Your task to perform on an android device: install app "Clock" Image 0: 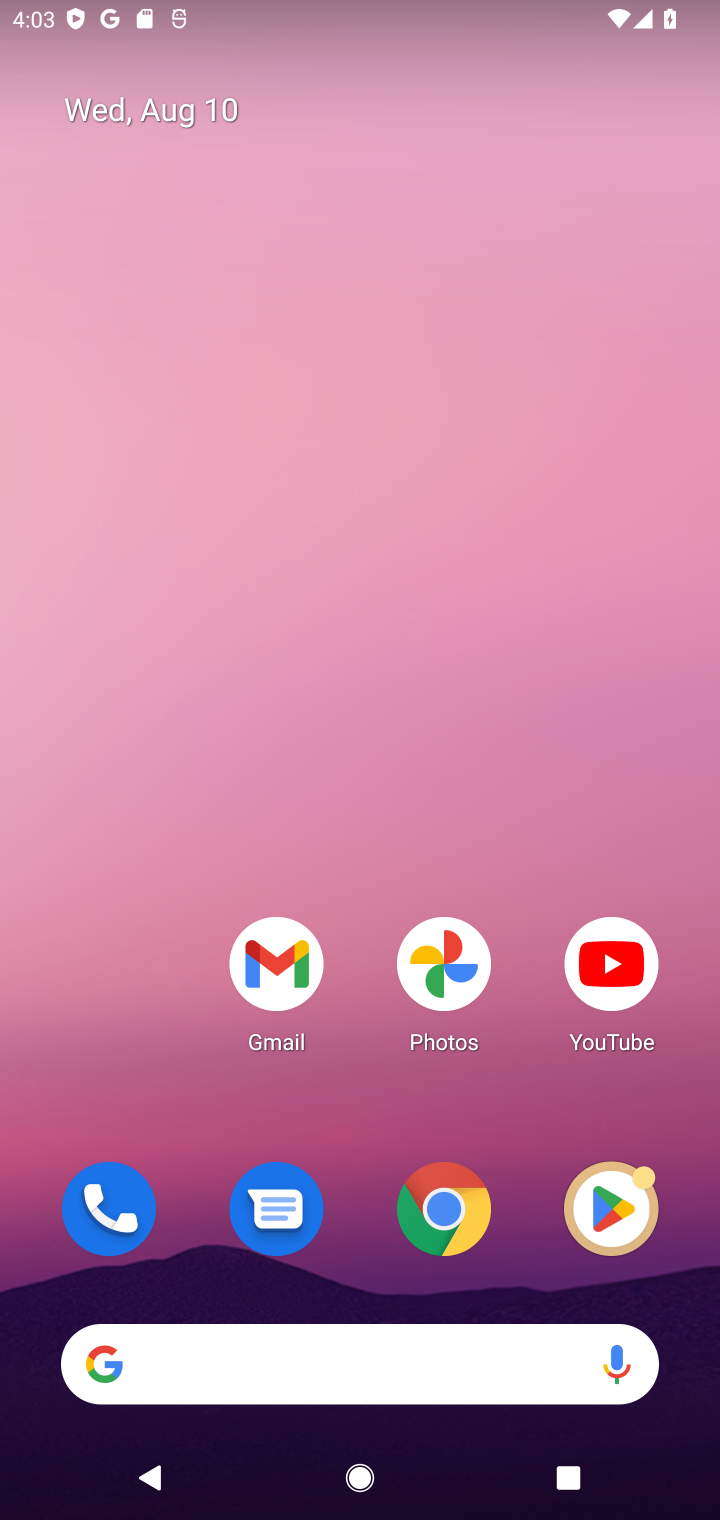
Step 0: click (617, 1226)
Your task to perform on an android device: install app "Clock" Image 1: 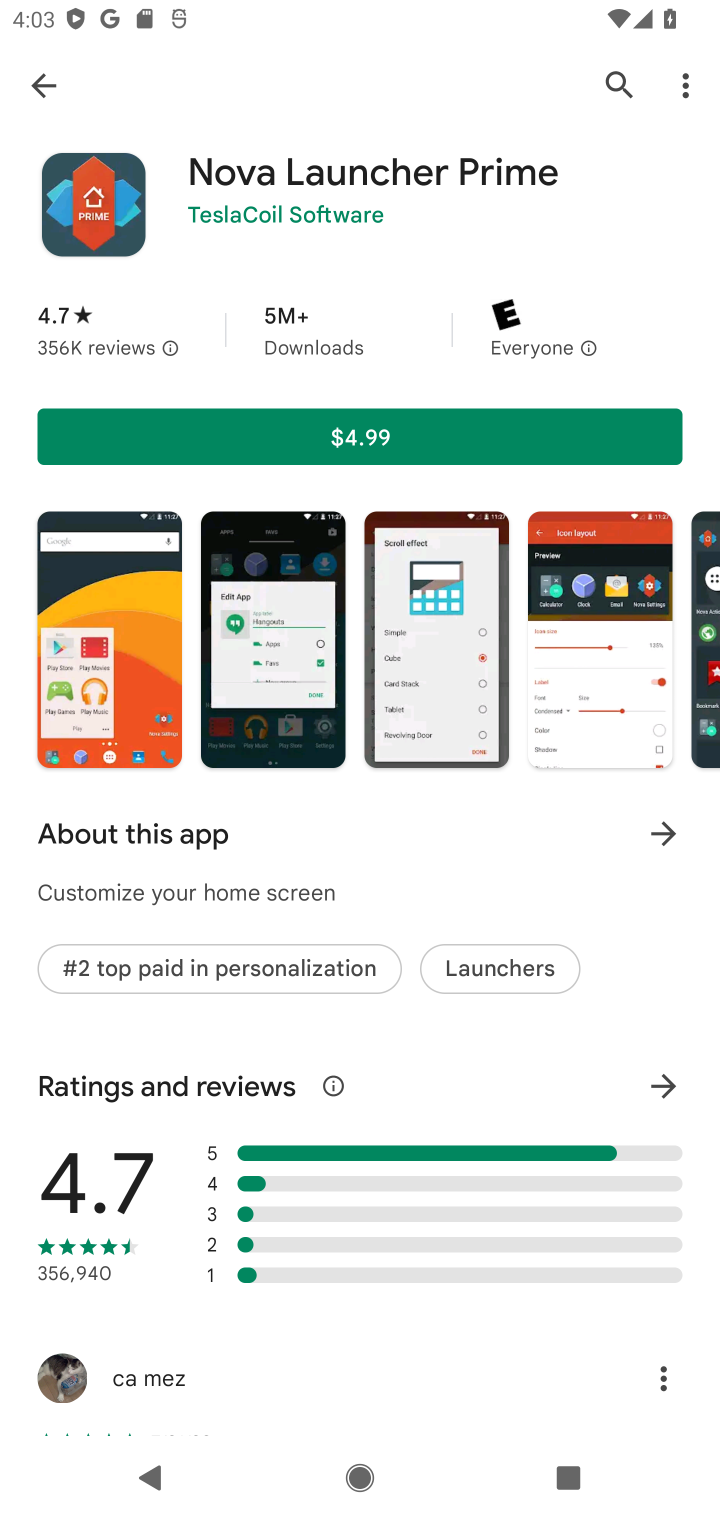
Step 1: click (624, 77)
Your task to perform on an android device: install app "Clock" Image 2: 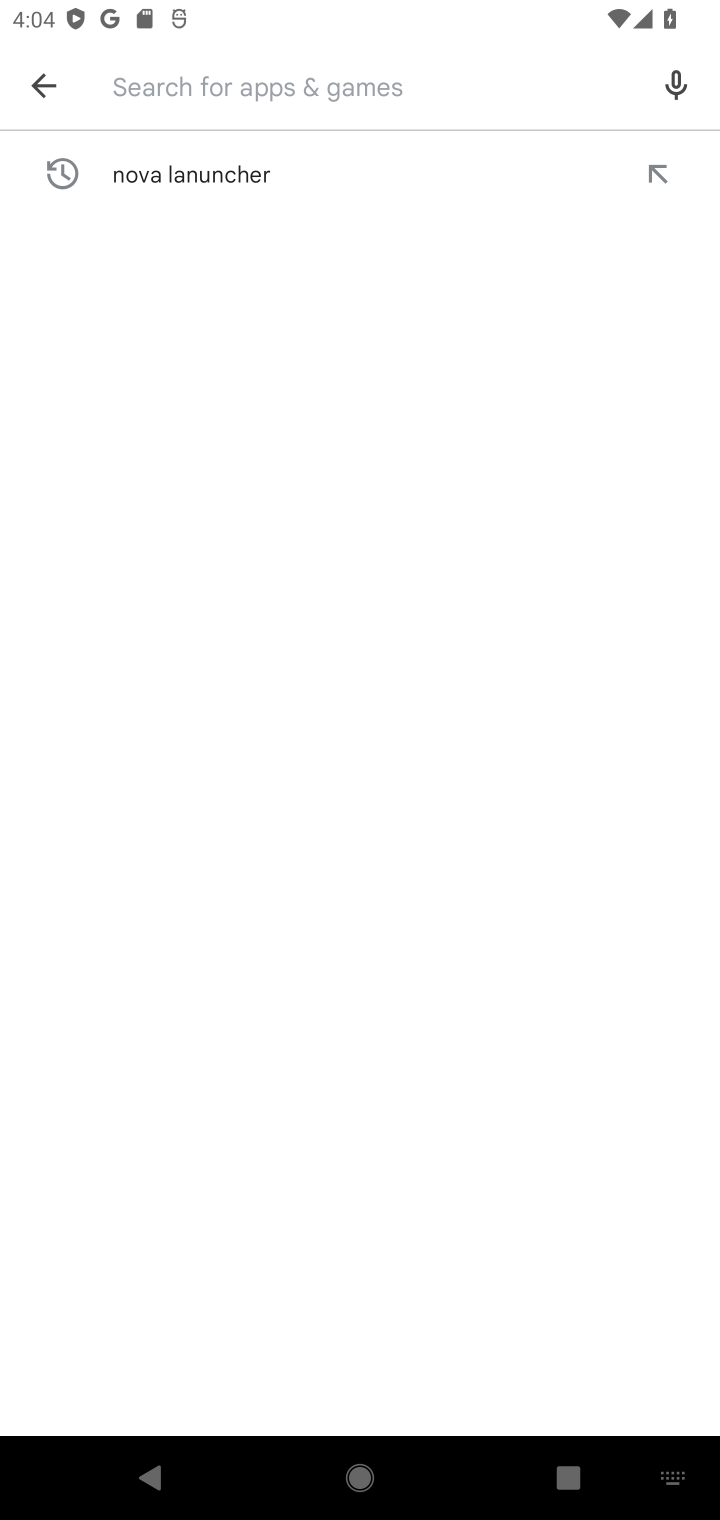
Step 2: type "clock"
Your task to perform on an android device: install app "Clock" Image 3: 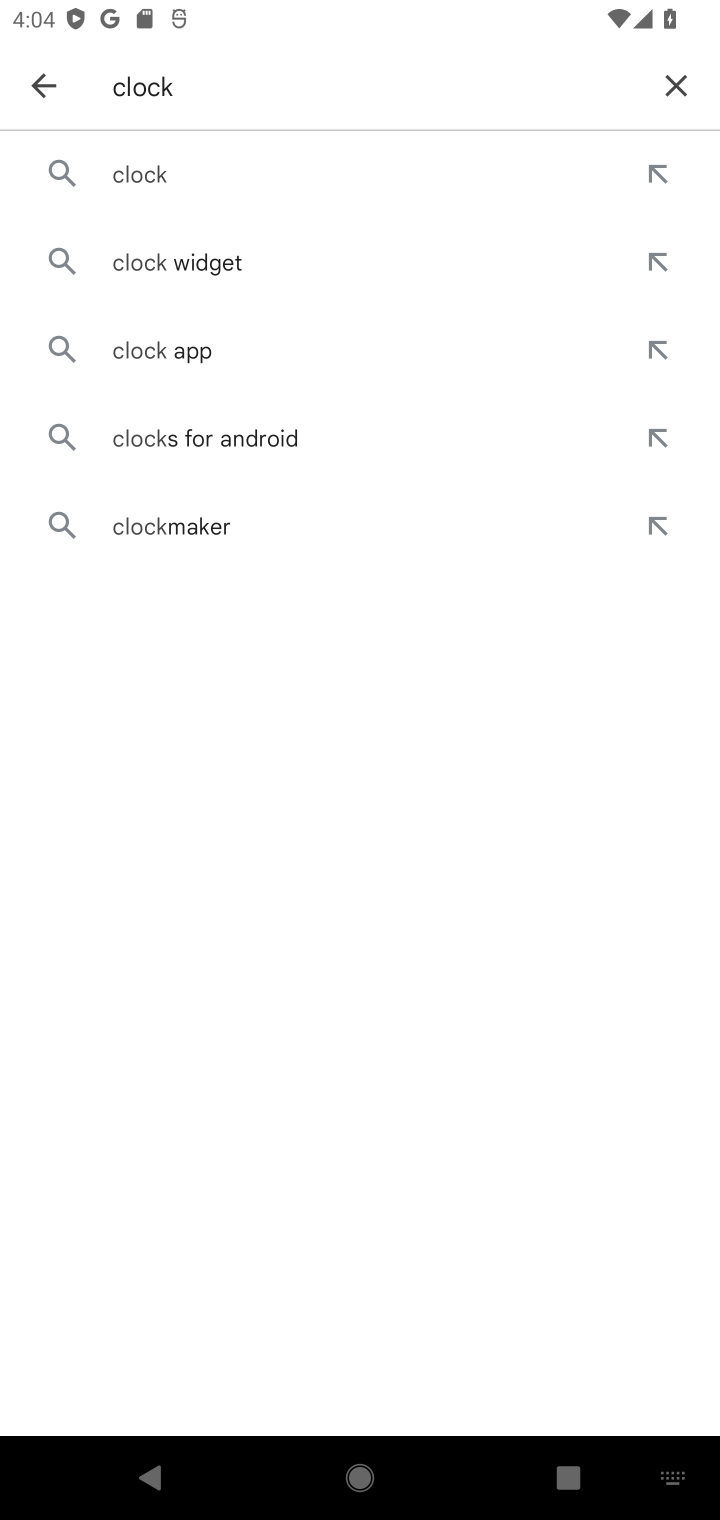
Step 3: click (228, 193)
Your task to perform on an android device: install app "Clock" Image 4: 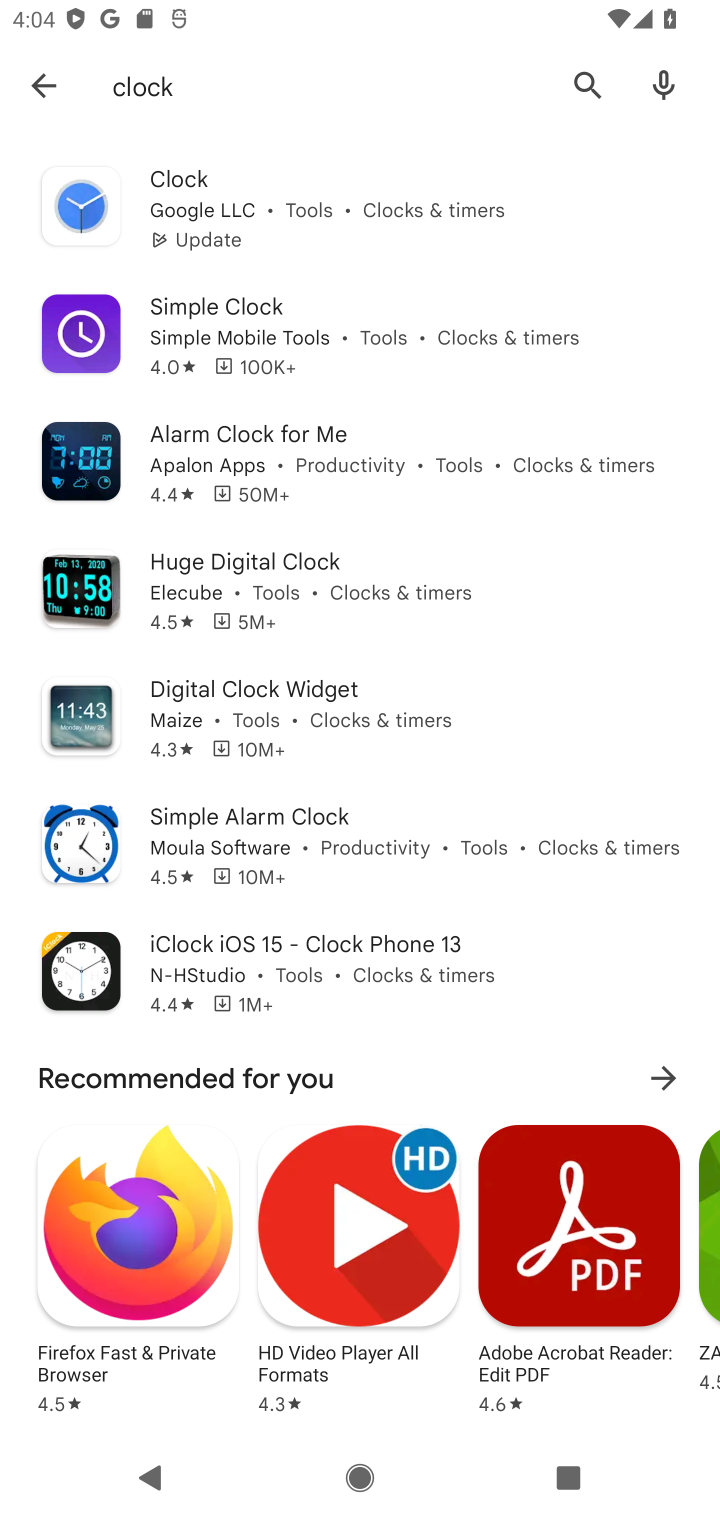
Step 4: click (247, 194)
Your task to perform on an android device: install app "Clock" Image 5: 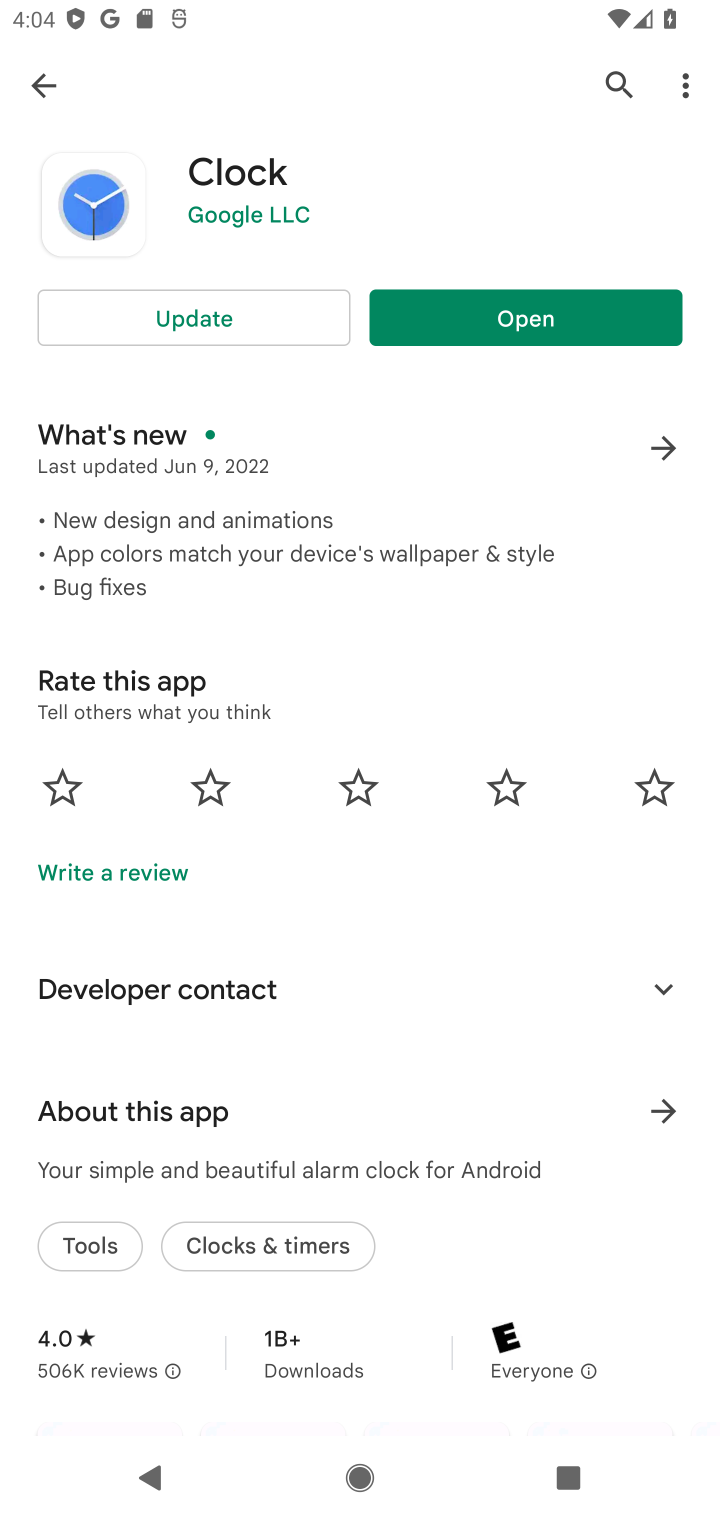
Step 5: click (468, 330)
Your task to perform on an android device: install app "Clock" Image 6: 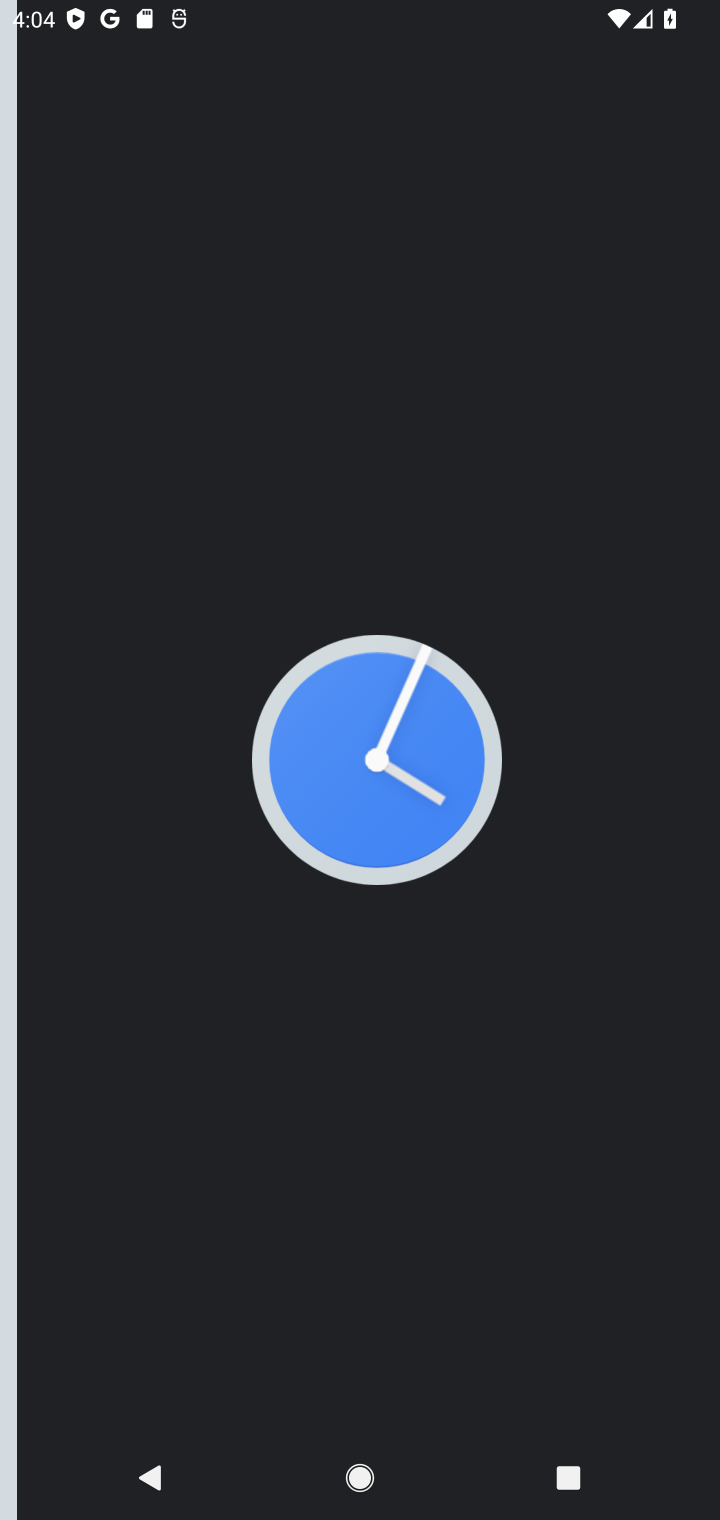
Step 6: task complete